Your task to perform on an android device: turn off javascript in the chrome app Image 0: 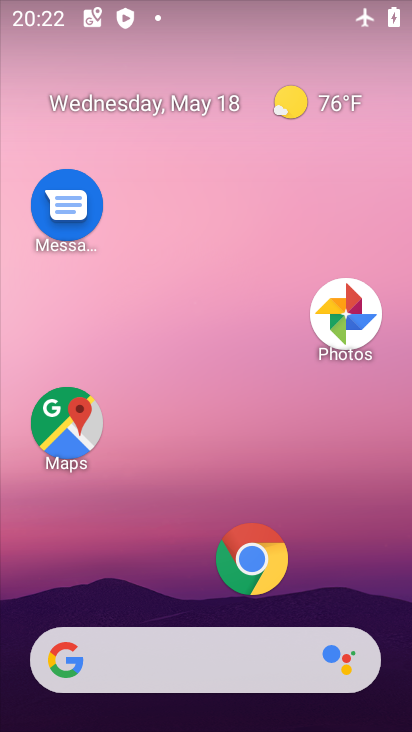
Step 0: click (274, 562)
Your task to perform on an android device: turn off javascript in the chrome app Image 1: 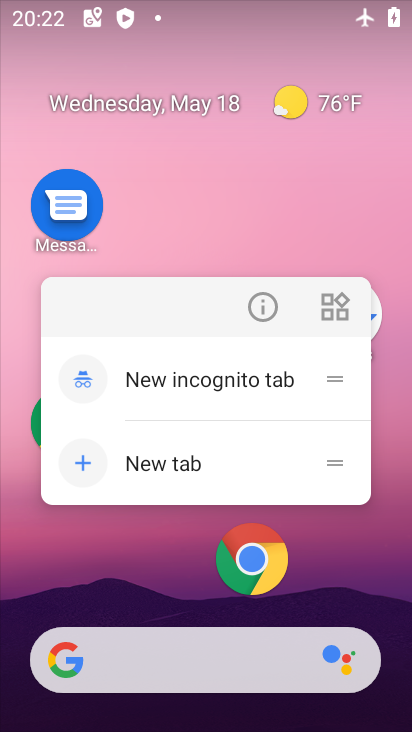
Step 1: click (261, 556)
Your task to perform on an android device: turn off javascript in the chrome app Image 2: 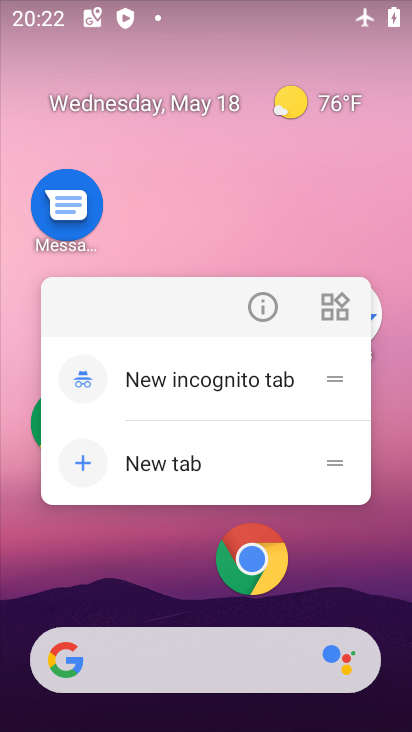
Step 2: click (247, 590)
Your task to perform on an android device: turn off javascript in the chrome app Image 3: 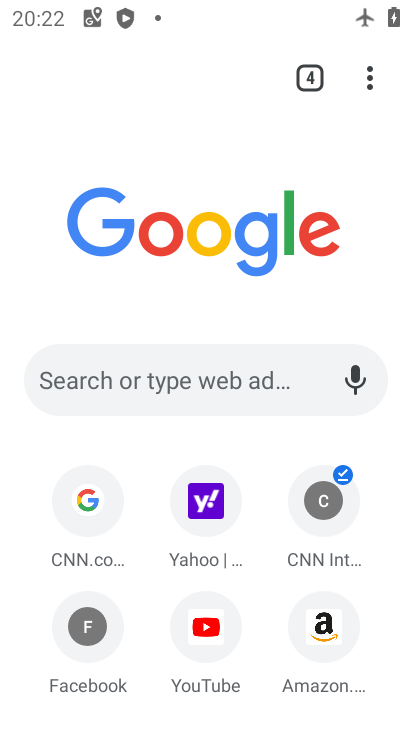
Step 3: drag from (368, 84) to (97, 641)
Your task to perform on an android device: turn off javascript in the chrome app Image 4: 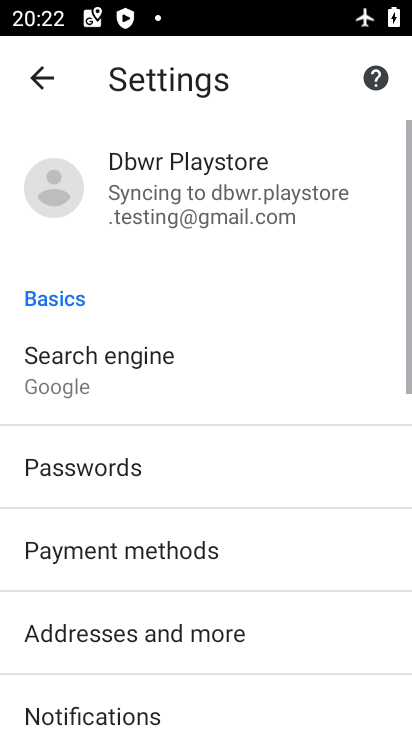
Step 4: drag from (102, 633) to (98, 62)
Your task to perform on an android device: turn off javascript in the chrome app Image 5: 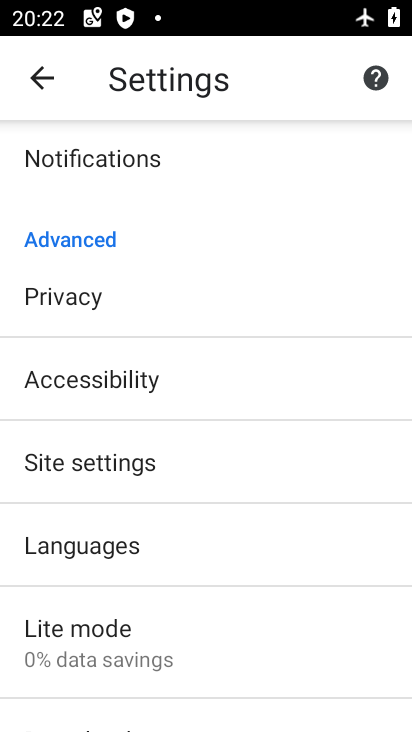
Step 5: click (106, 480)
Your task to perform on an android device: turn off javascript in the chrome app Image 6: 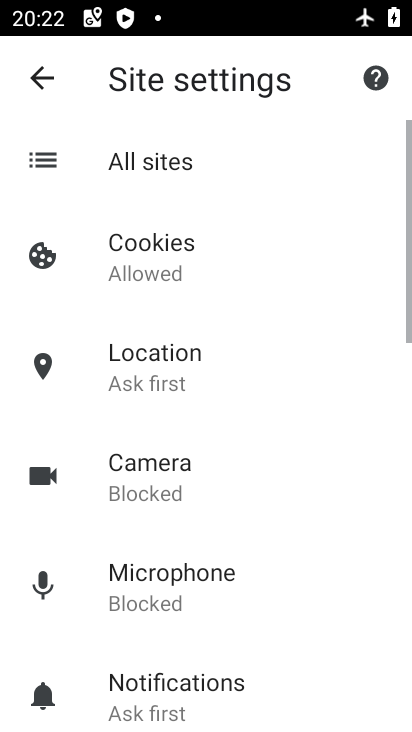
Step 6: drag from (147, 590) to (124, 158)
Your task to perform on an android device: turn off javascript in the chrome app Image 7: 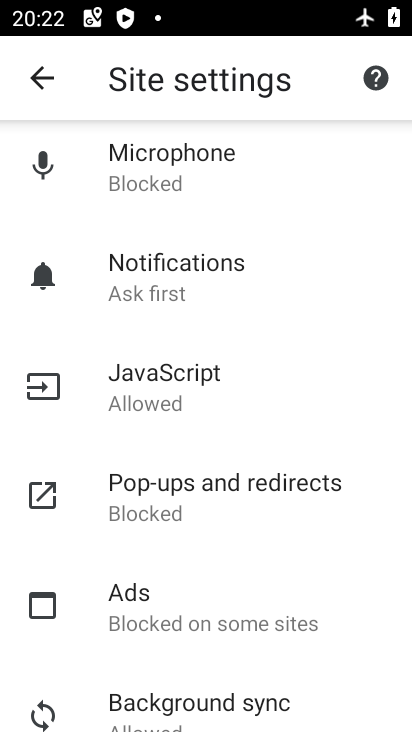
Step 7: click (147, 402)
Your task to perform on an android device: turn off javascript in the chrome app Image 8: 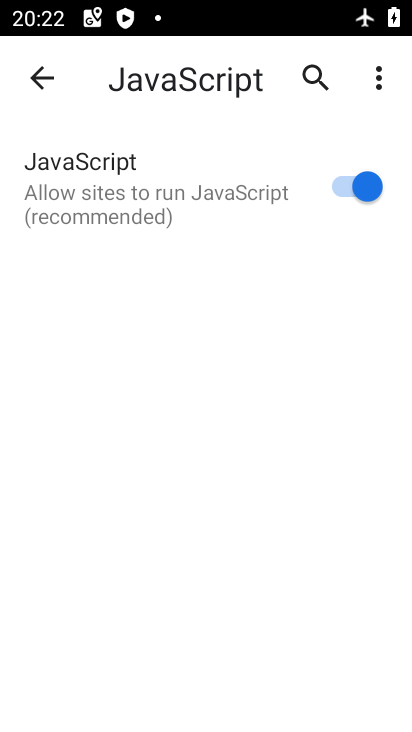
Step 8: click (353, 185)
Your task to perform on an android device: turn off javascript in the chrome app Image 9: 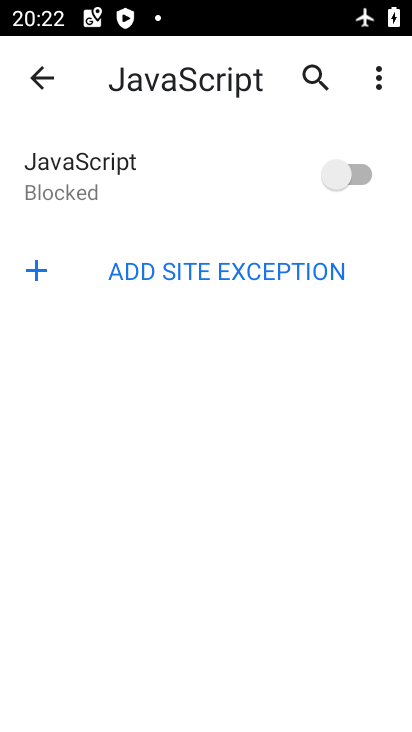
Step 9: task complete